Your task to perform on an android device: Go to location settings Image 0: 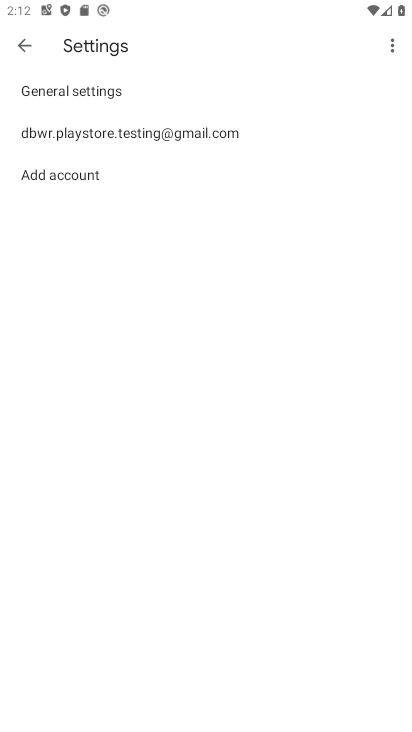
Step 0: press home button
Your task to perform on an android device: Go to location settings Image 1: 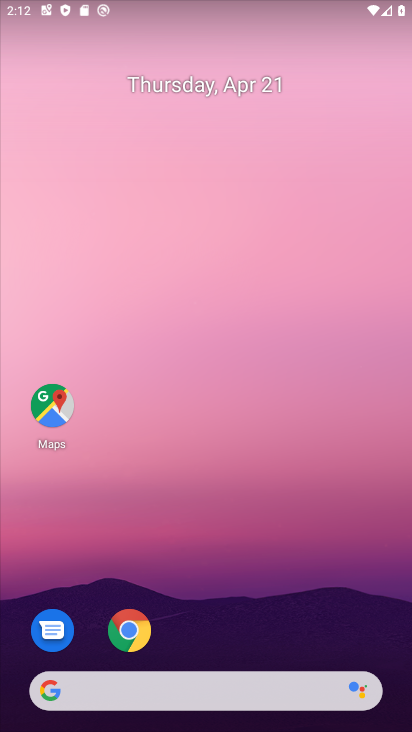
Step 1: drag from (320, 590) to (355, 117)
Your task to perform on an android device: Go to location settings Image 2: 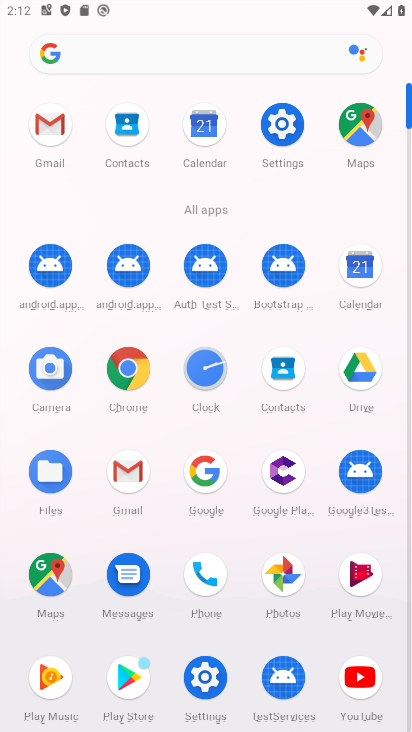
Step 2: click (274, 136)
Your task to perform on an android device: Go to location settings Image 3: 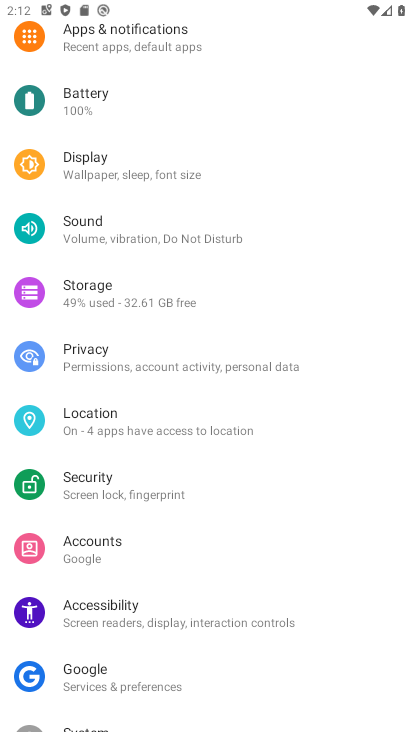
Step 3: drag from (363, 239) to (366, 323)
Your task to perform on an android device: Go to location settings Image 4: 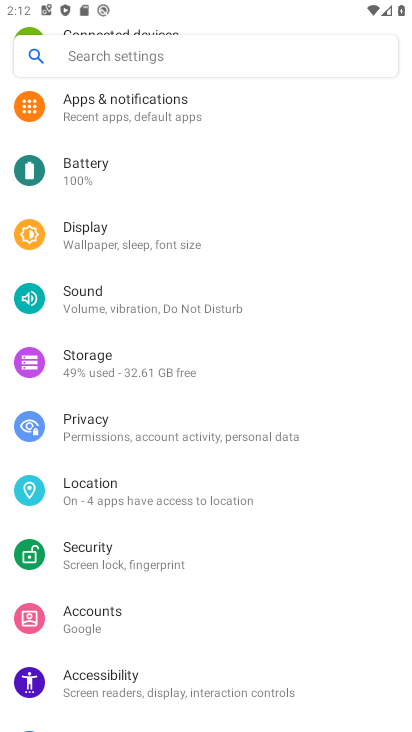
Step 4: drag from (370, 220) to (351, 352)
Your task to perform on an android device: Go to location settings Image 5: 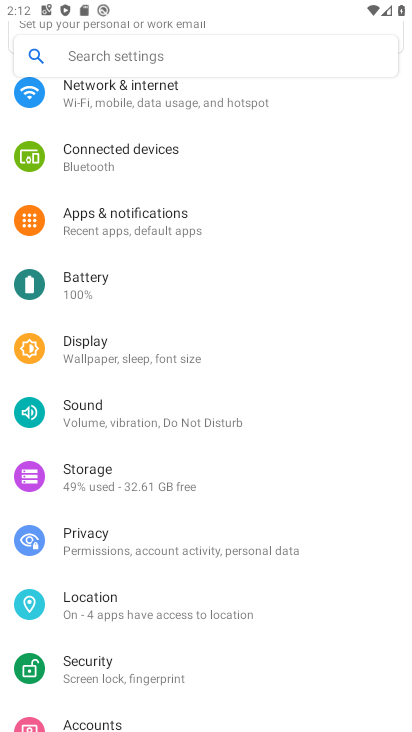
Step 5: drag from (338, 236) to (333, 395)
Your task to perform on an android device: Go to location settings Image 6: 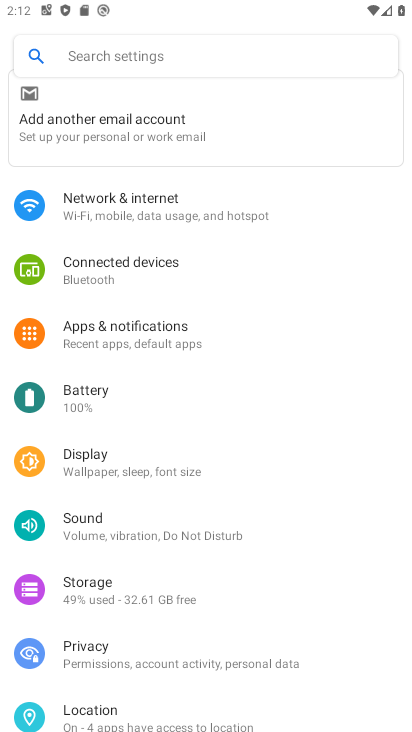
Step 6: drag from (347, 250) to (350, 450)
Your task to perform on an android device: Go to location settings Image 7: 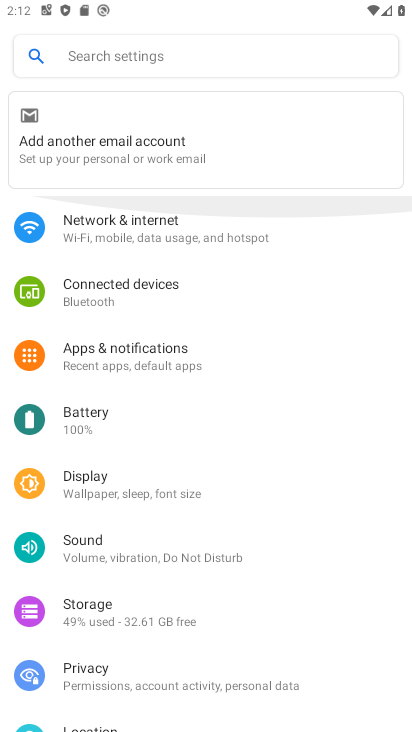
Step 7: drag from (340, 554) to (347, 369)
Your task to perform on an android device: Go to location settings Image 8: 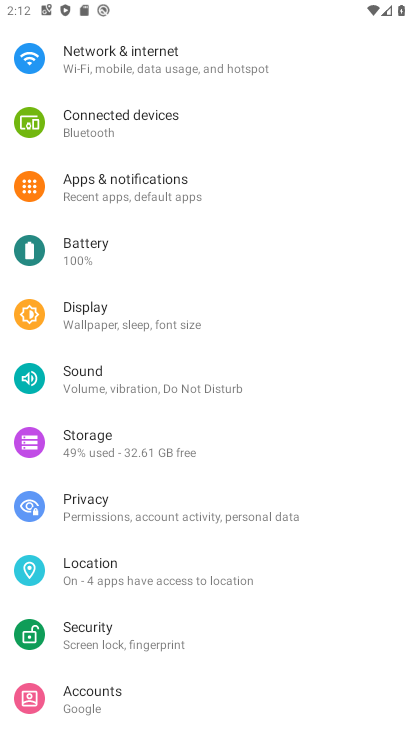
Step 8: drag from (347, 604) to (367, 430)
Your task to perform on an android device: Go to location settings Image 9: 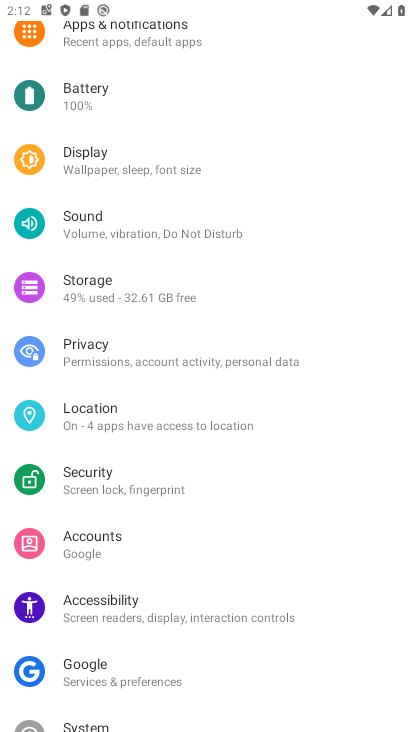
Step 9: drag from (358, 587) to (366, 410)
Your task to perform on an android device: Go to location settings Image 10: 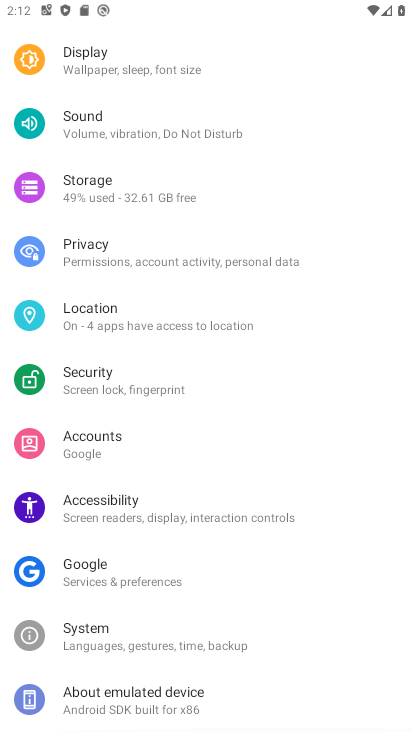
Step 10: drag from (341, 588) to (340, 459)
Your task to perform on an android device: Go to location settings Image 11: 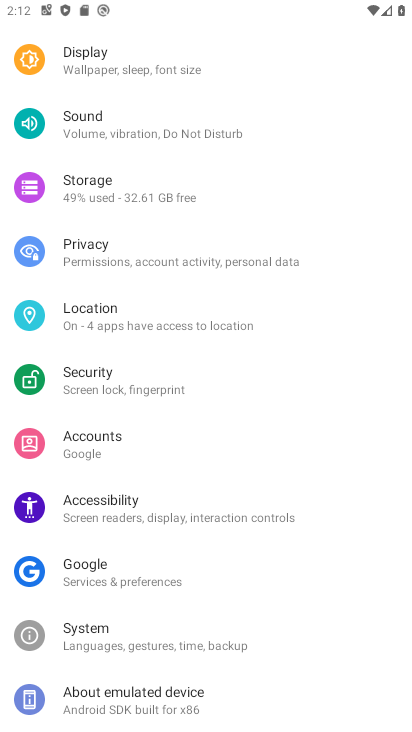
Step 11: click (163, 319)
Your task to perform on an android device: Go to location settings Image 12: 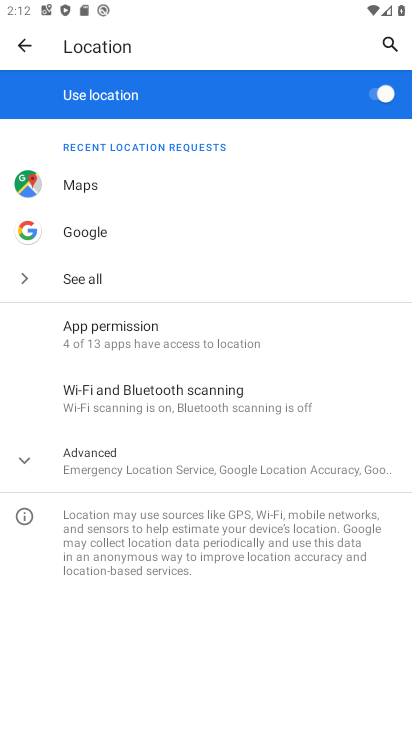
Step 12: task complete